Your task to perform on an android device: make emails show in primary in the gmail app Image 0: 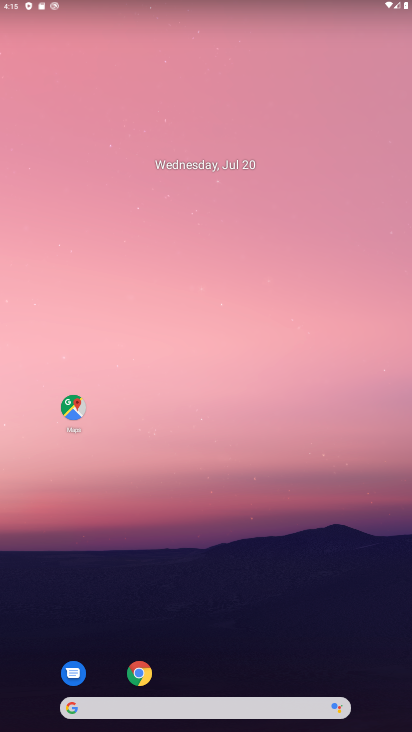
Step 0: drag from (233, 655) to (302, 132)
Your task to perform on an android device: make emails show in primary in the gmail app Image 1: 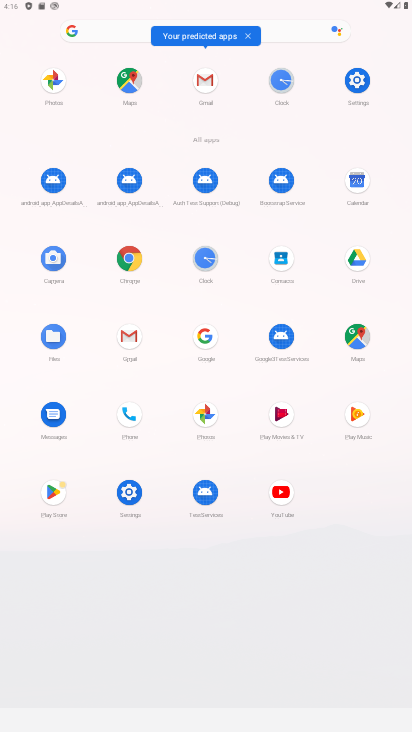
Step 1: click (129, 324)
Your task to perform on an android device: make emails show in primary in the gmail app Image 2: 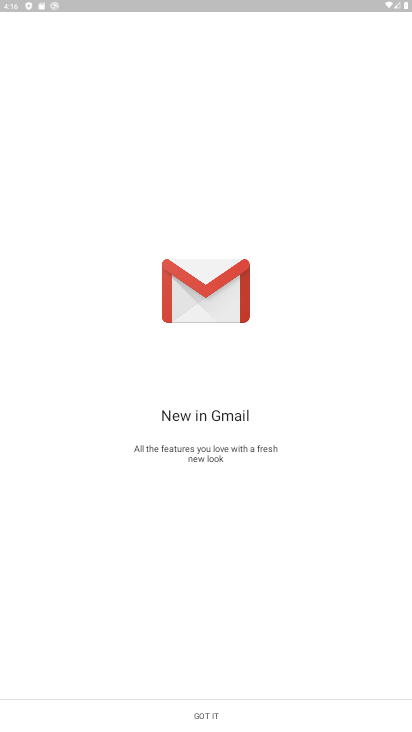
Step 2: click (208, 712)
Your task to perform on an android device: make emails show in primary in the gmail app Image 3: 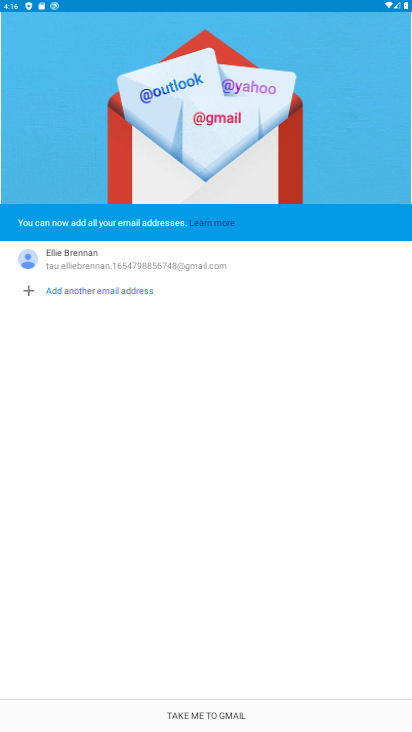
Step 3: click (208, 712)
Your task to perform on an android device: make emails show in primary in the gmail app Image 4: 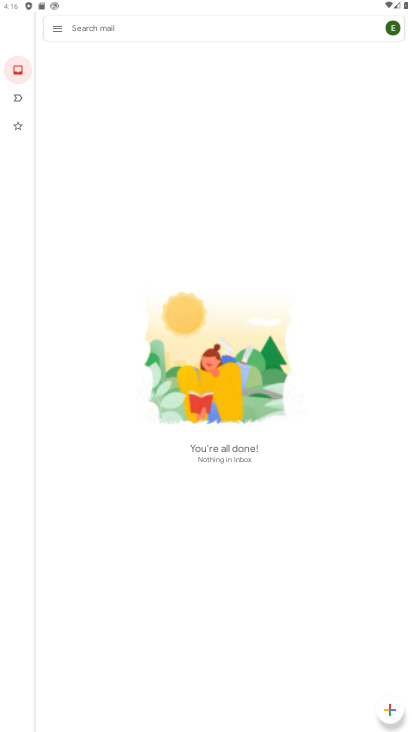
Step 4: click (74, 37)
Your task to perform on an android device: make emails show in primary in the gmail app Image 5: 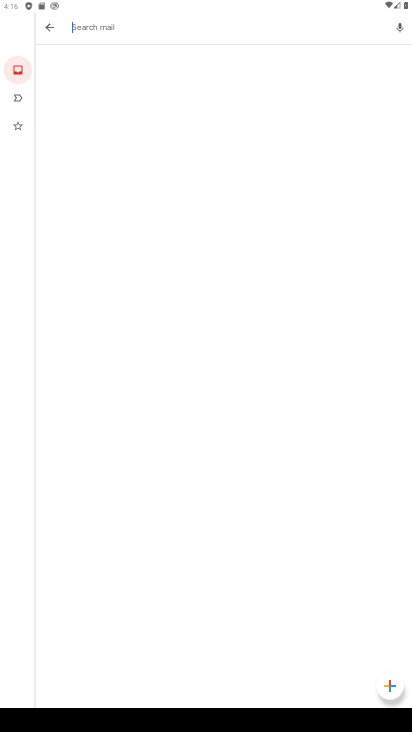
Step 5: press back button
Your task to perform on an android device: make emails show in primary in the gmail app Image 6: 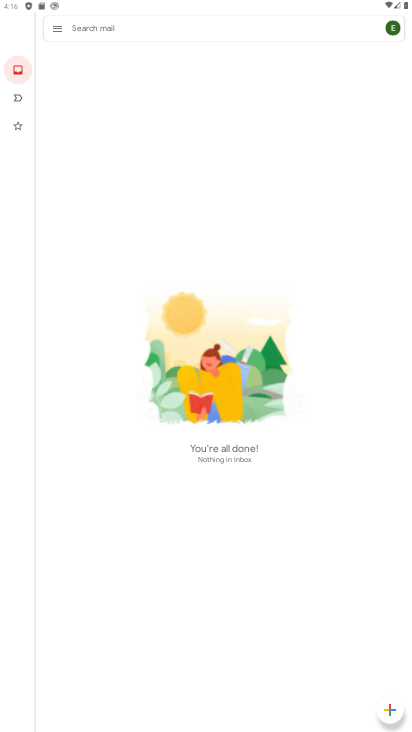
Step 6: click (57, 25)
Your task to perform on an android device: make emails show in primary in the gmail app Image 7: 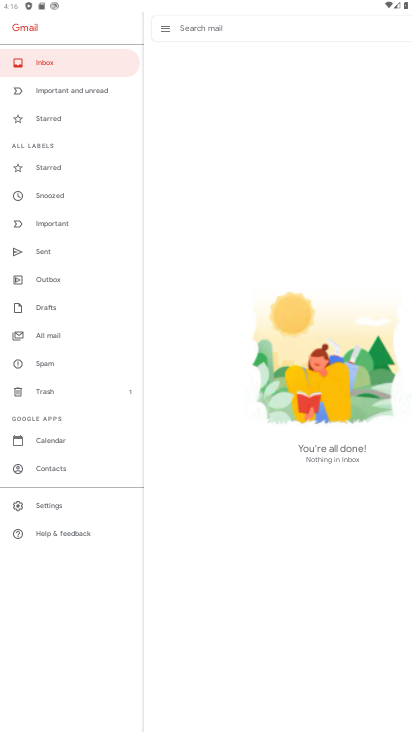
Step 7: click (79, 512)
Your task to perform on an android device: make emails show in primary in the gmail app Image 8: 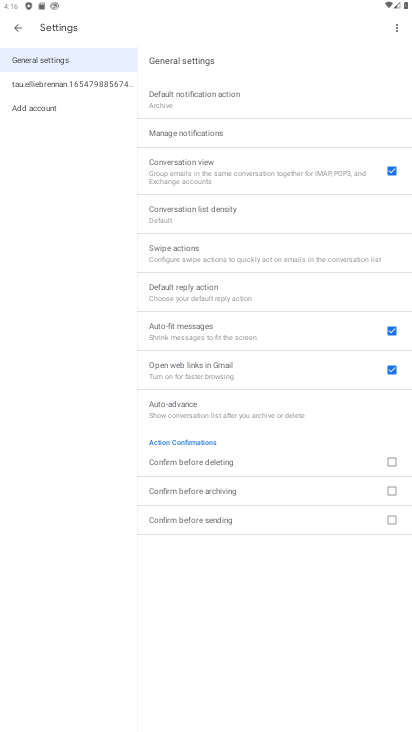
Step 8: click (105, 91)
Your task to perform on an android device: make emails show in primary in the gmail app Image 9: 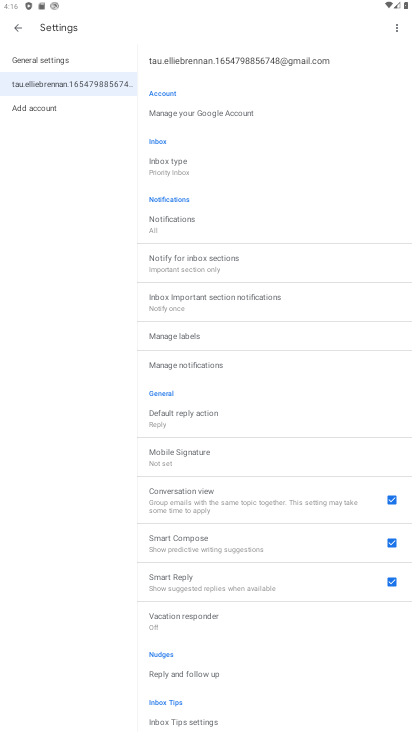
Step 9: click (236, 158)
Your task to perform on an android device: make emails show in primary in the gmail app Image 10: 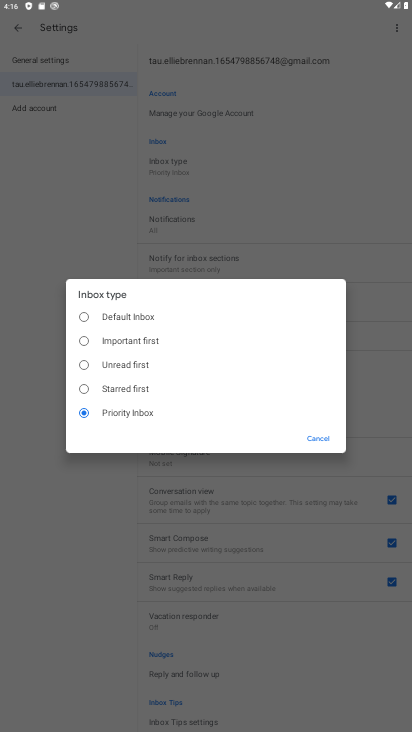
Step 10: click (134, 324)
Your task to perform on an android device: make emails show in primary in the gmail app Image 11: 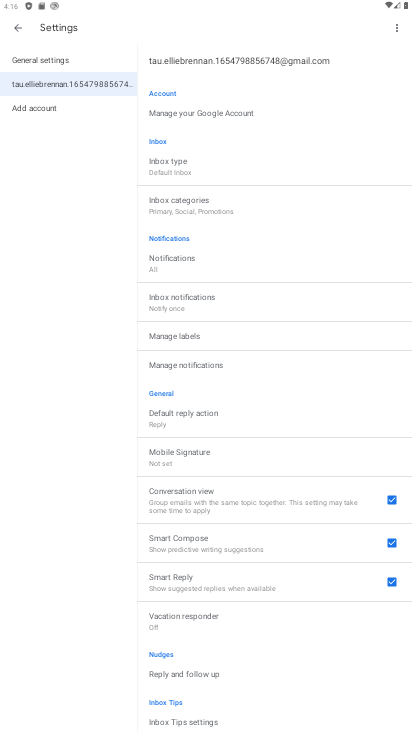
Step 11: click (246, 213)
Your task to perform on an android device: make emails show in primary in the gmail app Image 12: 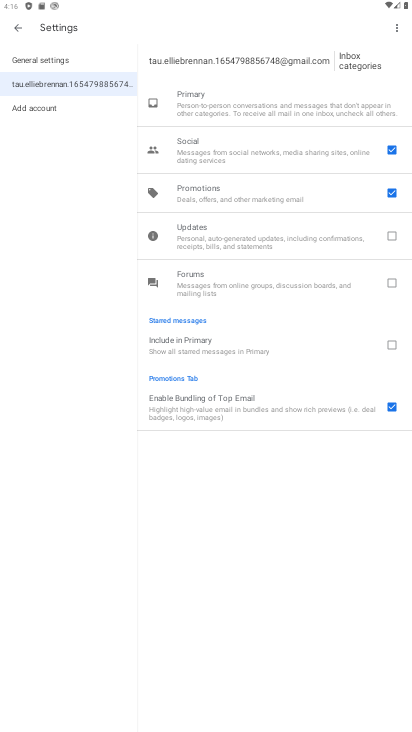
Step 12: click (386, 344)
Your task to perform on an android device: make emails show in primary in the gmail app Image 13: 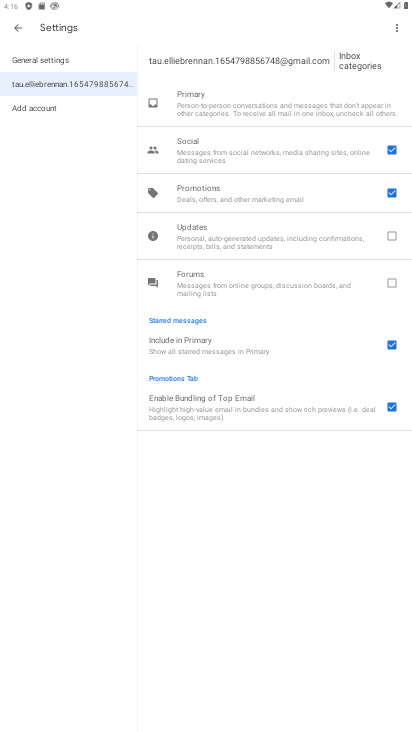
Step 13: task complete